Your task to perform on an android device: Go to display settings Image 0: 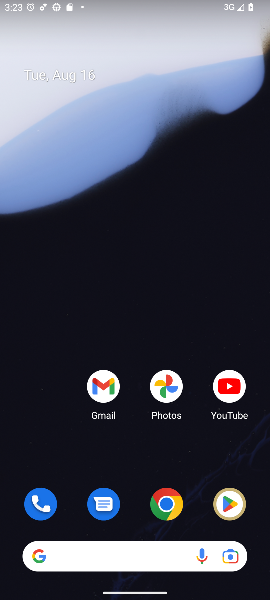
Step 0: drag from (141, 472) to (110, 50)
Your task to perform on an android device: Go to display settings Image 1: 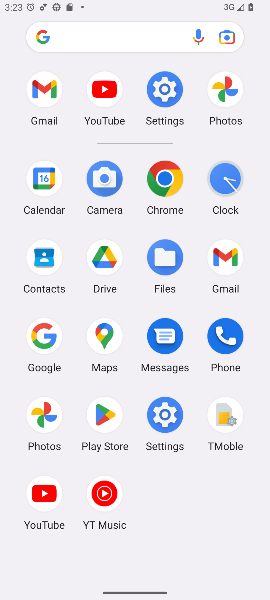
Step 1: click (164, 88)
Your task to perform on an android device: Go to display settings Image 2: 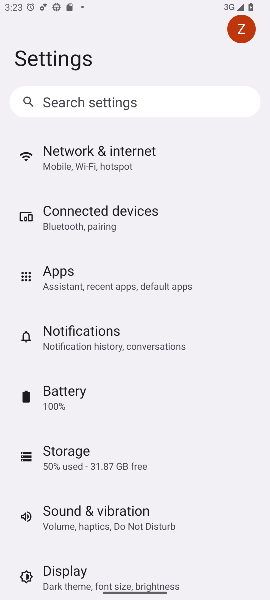
Step 2: drag from (164, 506) to (178, 220)
Your task to perform on an android device: Go to display settings Image 3: 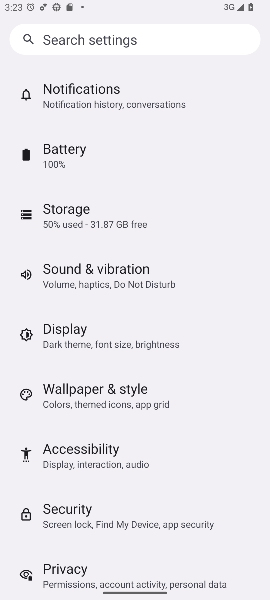
Step 3: click (75, 327)
Your task to perform on an android device: Go to display settings Image 4: 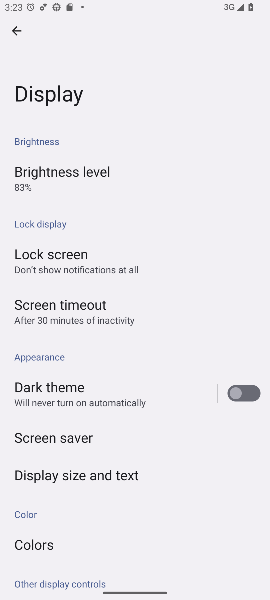
Step 4: task complete